Your task to perform on an android device: Open CNN.com Image 0: 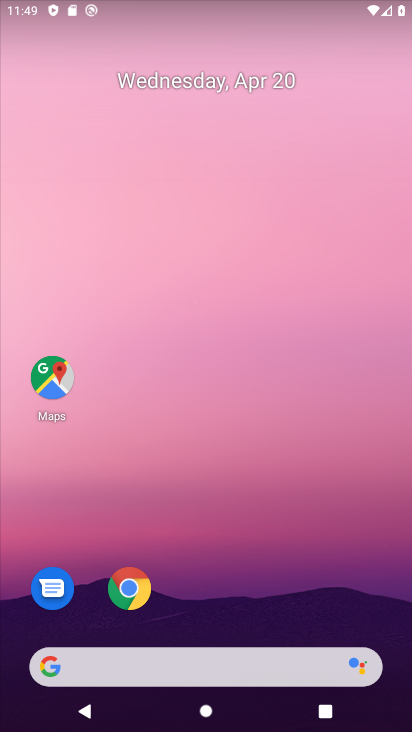
Step 0: click (141, 596)
Your task to perform on an android device: Open CNN.com Image 1: 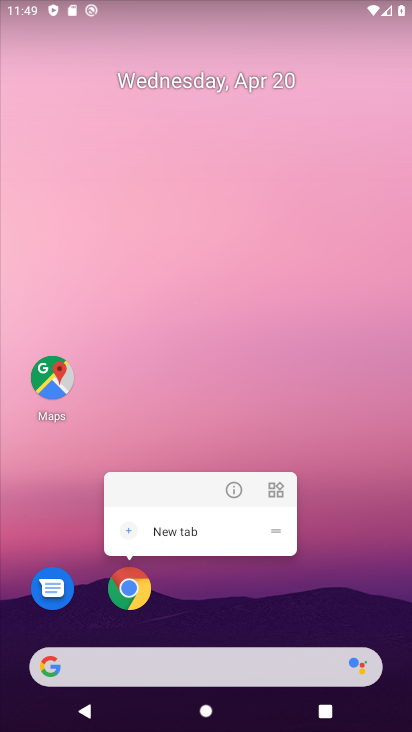
Step 1: click (141, 596)
Your task to perform on an android device: Open CNN.com Image 2: 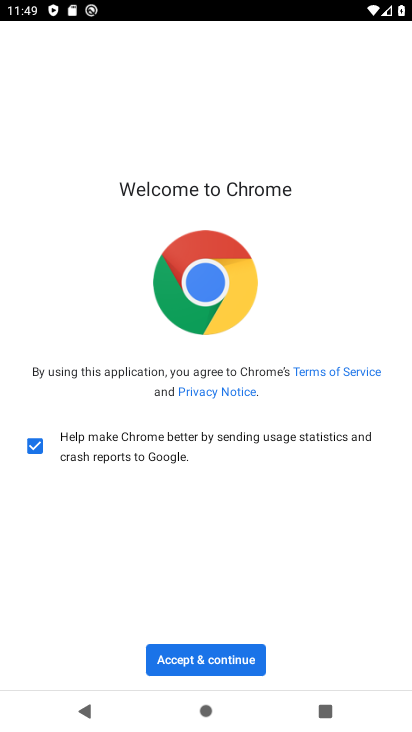
Step 2: click (182, 652)
Your task to perform on an android device: Open CNN.com Image 3: 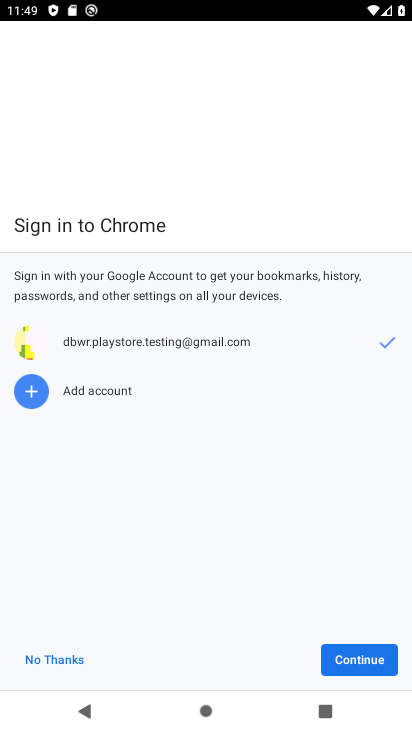
Step 3: click (358, 651)
Your task to perform on an android device: Open CNN.com Image 4: 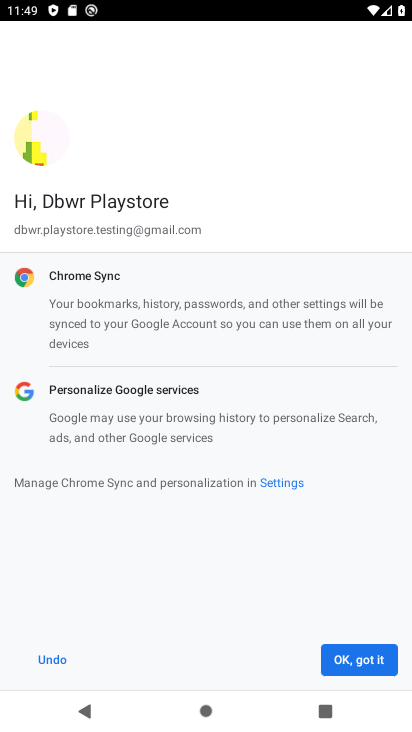
Step 4: click (358, 651)
Your task to perform on an android device: Open CNN.com Image 5: 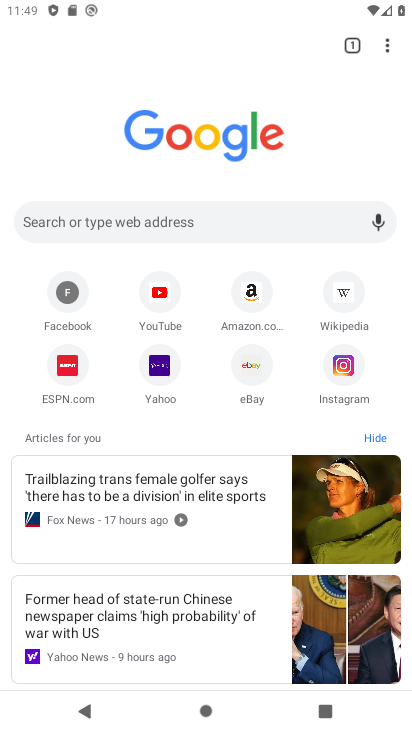
Step 5: click (71, 367)
Your task to perform on an android device: Open CNN.com Image 6: 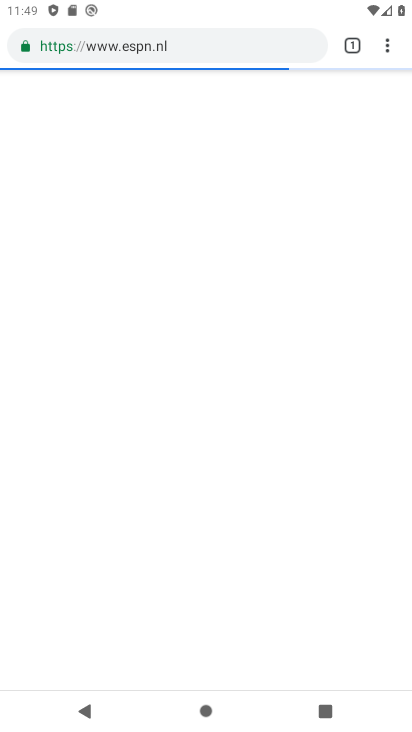
Step 6: task complete